Your task to perform on an android device: Open Chrome and go to the settings page Image 0: 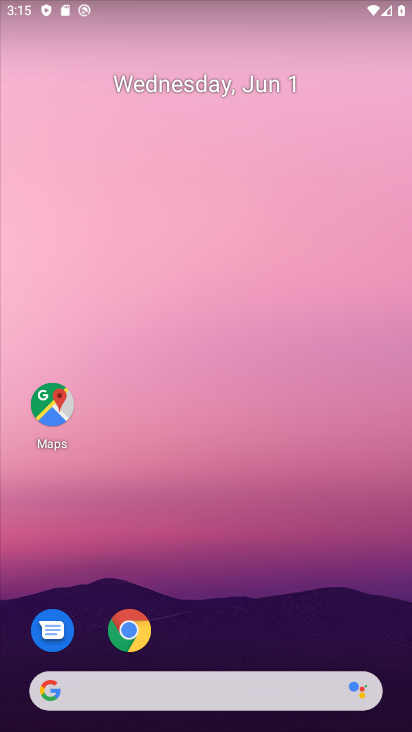
Step 0: click (134, 634)
Your task to perform on an android device: Open Chrome and go to the settings page Image 1: 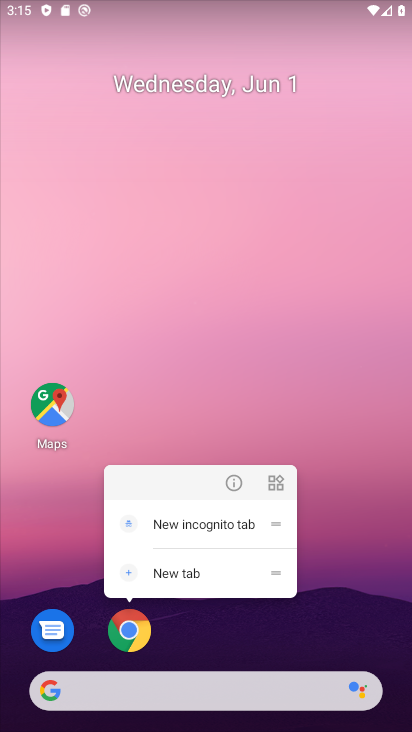
Step 1: click (131, 633)
Your task to perform on an android device: Open Chrome and go to the settings page Image 2: 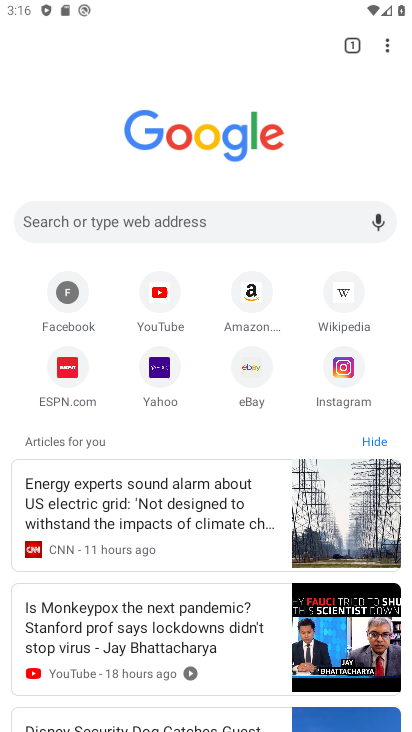
Step 2: task complete